Your task to perform on an android device: Open the phone app and click the voicemail tab. Image 0: 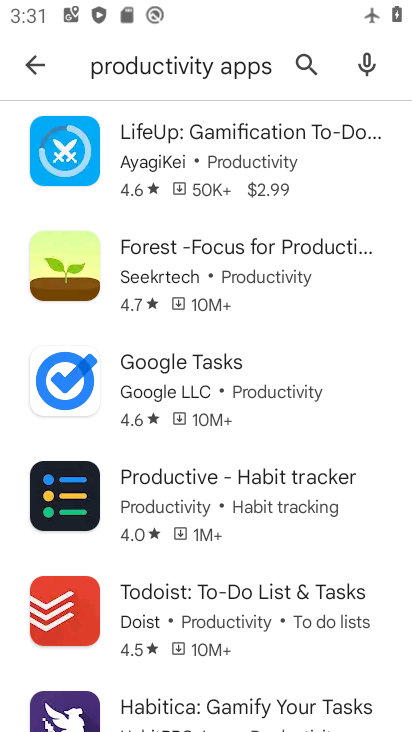
Step 0: press home button
Your task to perform on an android device: Open the phone app and click the voicemail tab. Image 1: 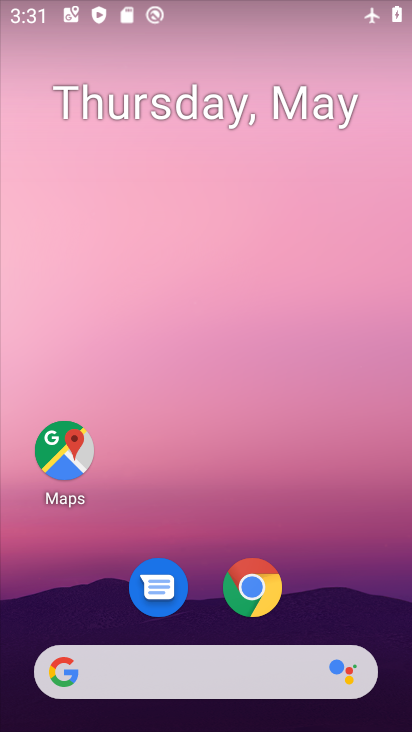
Step 1: drag from (174, 622) to (239, 259)
Your task to perform on an android device: Open the phone app and click the voicemail tab. Image 2: 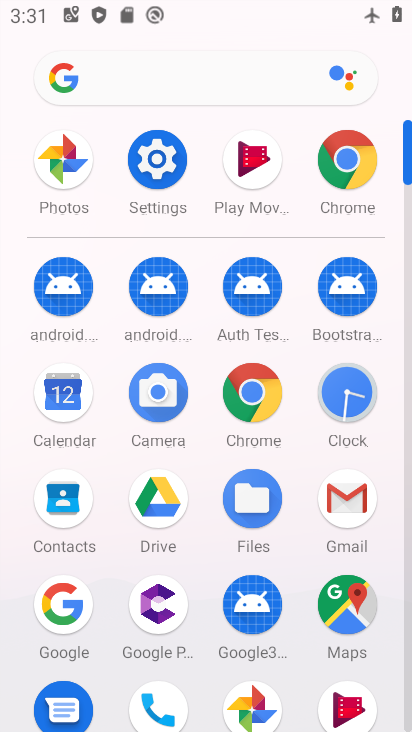
Step 2: drag from (224, 497) to (240, 299)
Your task to perform on an android device: Open the phone app and click the voicemail tab. Image 3: 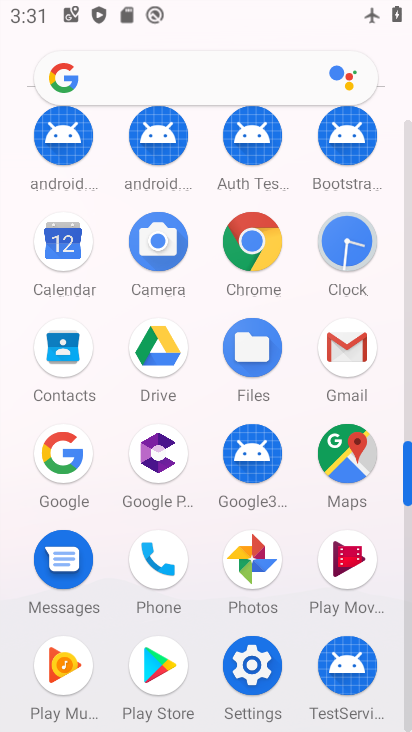
Step 3: click (159, 553)
Your task to perform on an android device: Open the phone app and click the voicemail tab. Image 4: 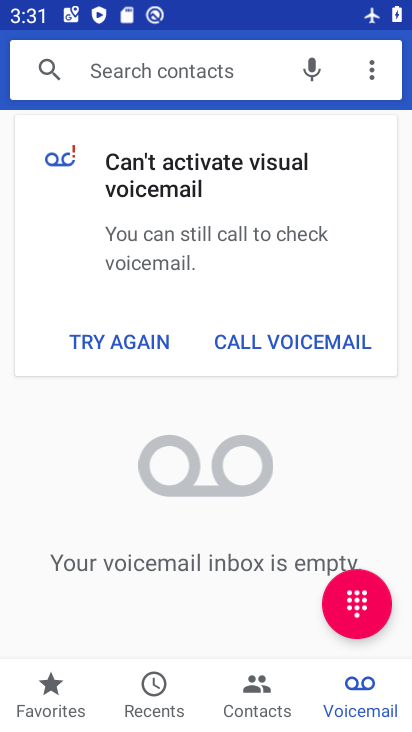
Step 4: task complete